Your task to perform on an android device: Go to Yahoo.com Image 0: 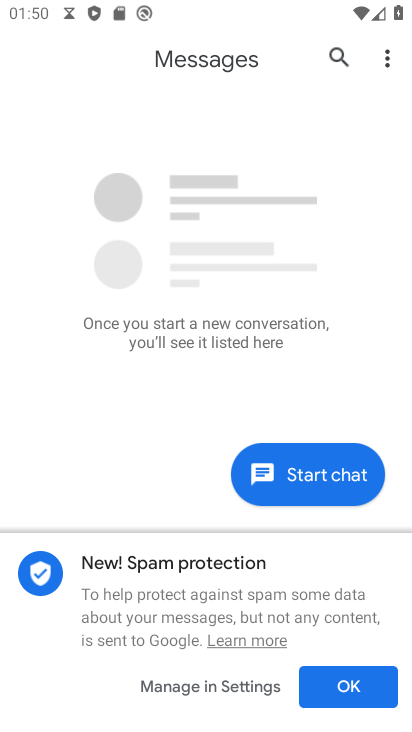
Step 0: press home button
Your task to perform on an android device: Go to Yahoo.com Image 1: 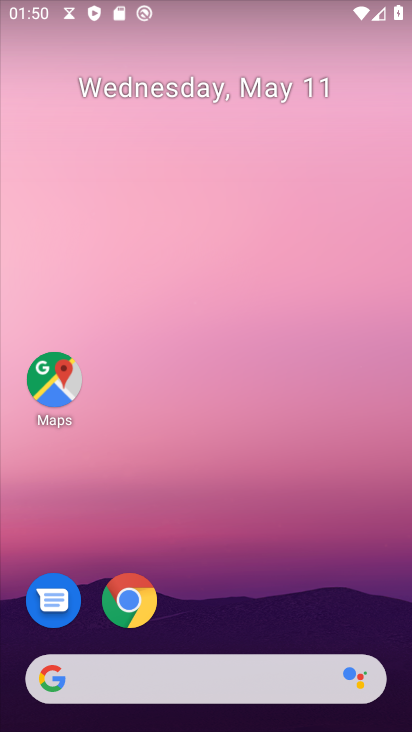
Step 1: drag from (269, 584) to (314, 295)
Your task to perform on an android device: Go to Yahoo.com Image 2: 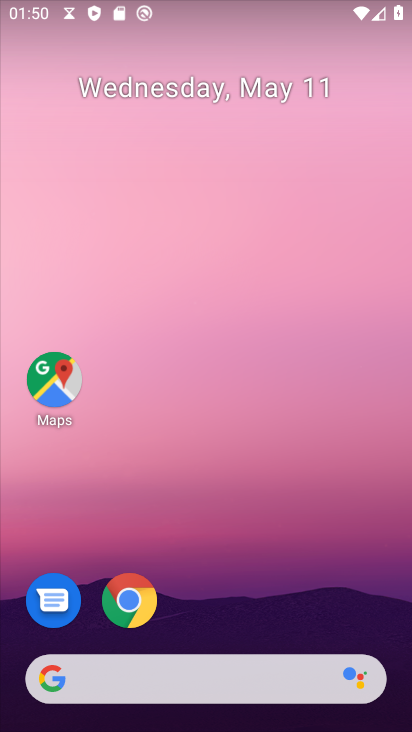
Step 2: drag from (233, 564) to (231, 257)
Your task to perform on an android device: Go to Yahoo.com Image 3: 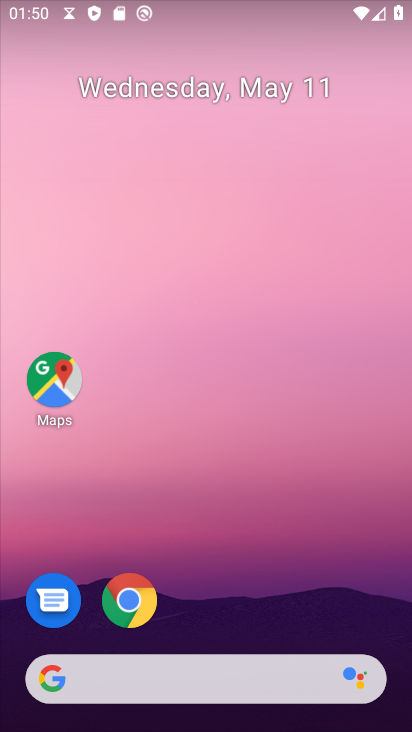
Step 3: drag from (192, 615) to (226, 246)
Your task to perform on an android device: Go to Yahoo.com Image 4: 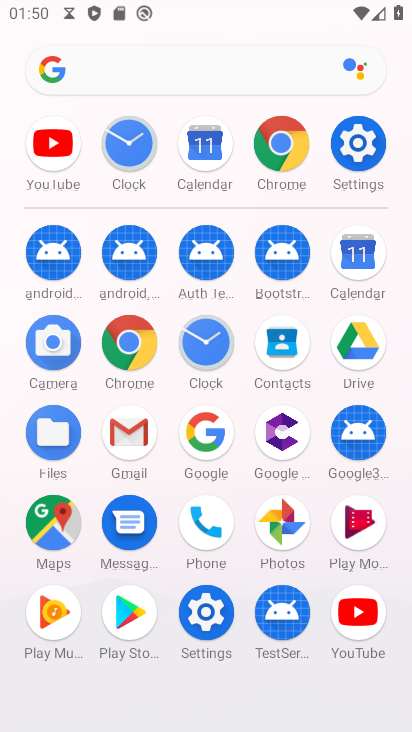
Step 4: click (278, 141)
Your task to perform on an android device: Go to Yahoo.com Image 5: 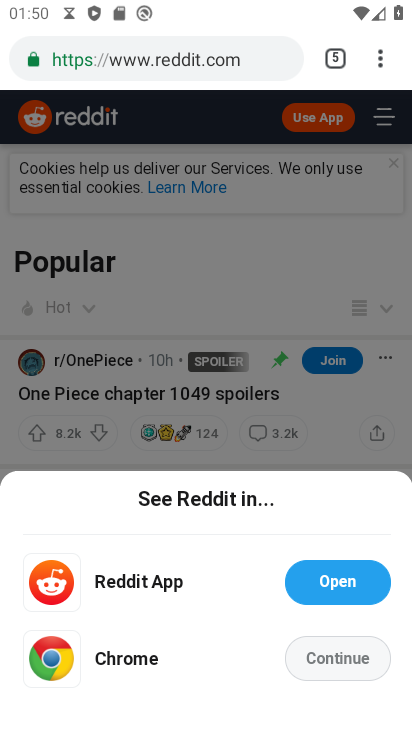
Step 5: click (367, 53)
Your task to perform on an android device: Go to Yahoo.com Image 6: 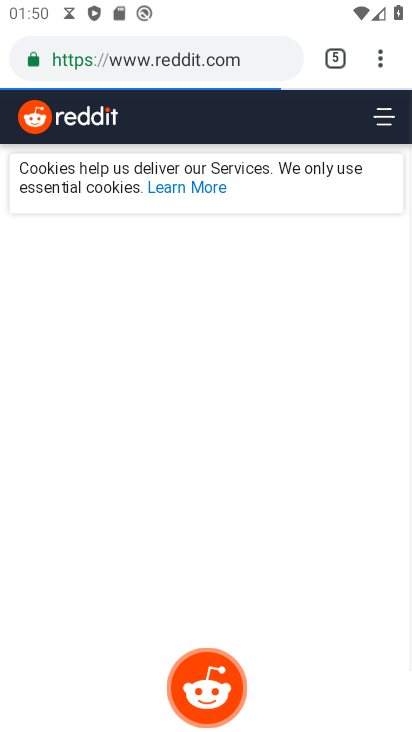
Step 6: click (361, 45)
Your task to perform on an android device: Go to Yahoo.com Image 7: 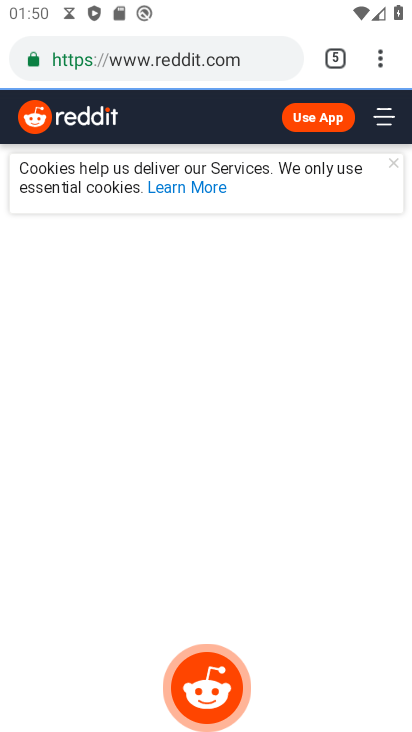
Step 7: click (358, 58)
Your task to perform on an android device: Go to Yahoo.com Image 8: 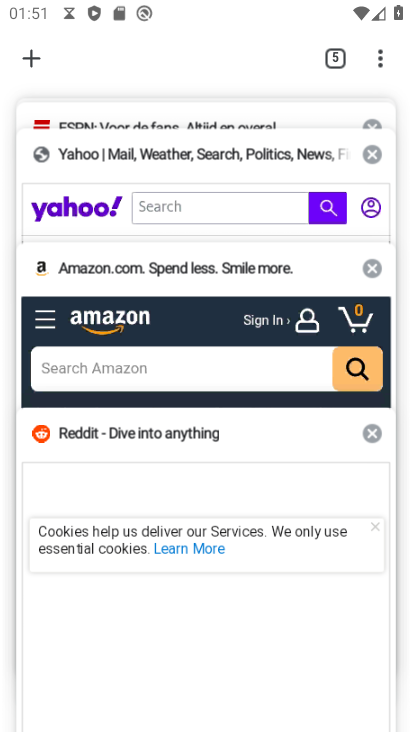
Step 8: click (91, 212)
Your task to perform on an android device: Go to Yahoo.com Image 9: 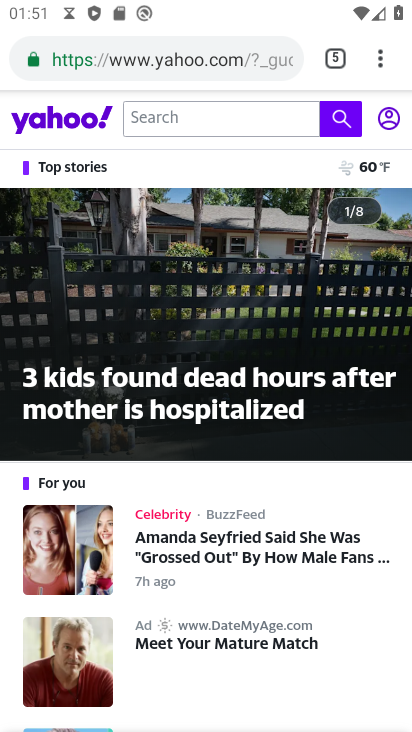
Step 9: task complete